Your task to perform on an android device: Search for macbook on bestbuy.com, select the first entry, and add it to the cart. Image 0: 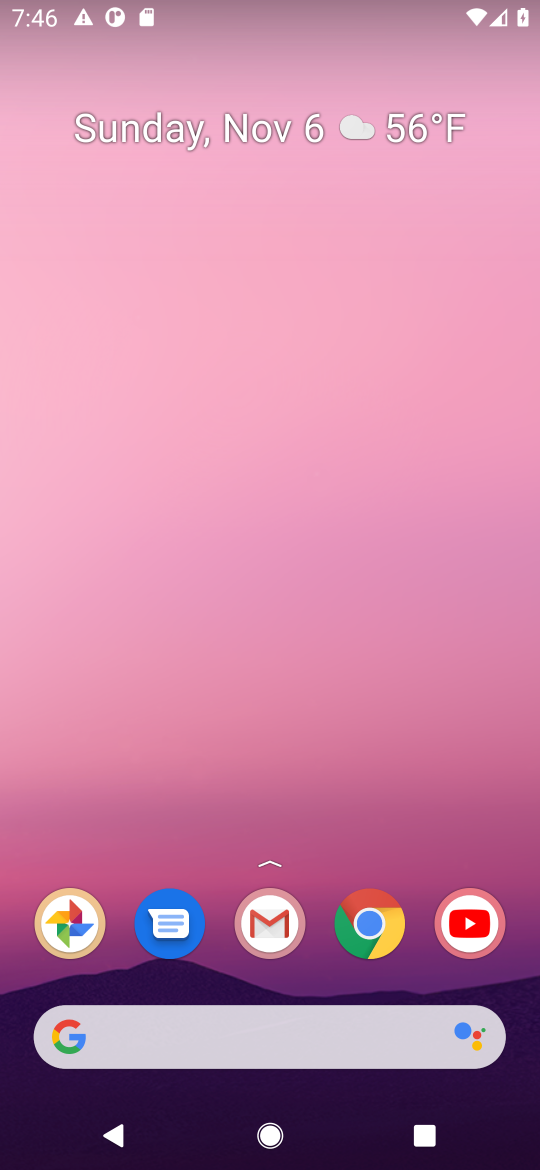
Step 0: click (375, 943)
Your task to perform on an android device: Search for macbook on bestbuy.com, select the first entry, and add it to the cart. Image 1: 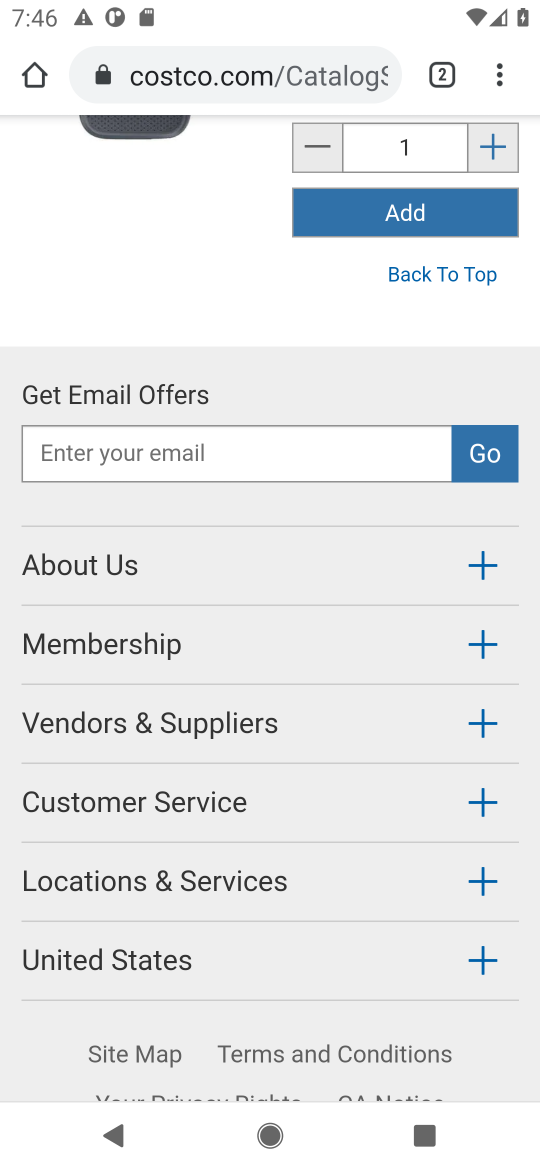
Step 1: click (187, 83)
Your task to perform on an android device: Search for macbook on bestbuy.com, select the first entry, and add it to the cart. Image 2: 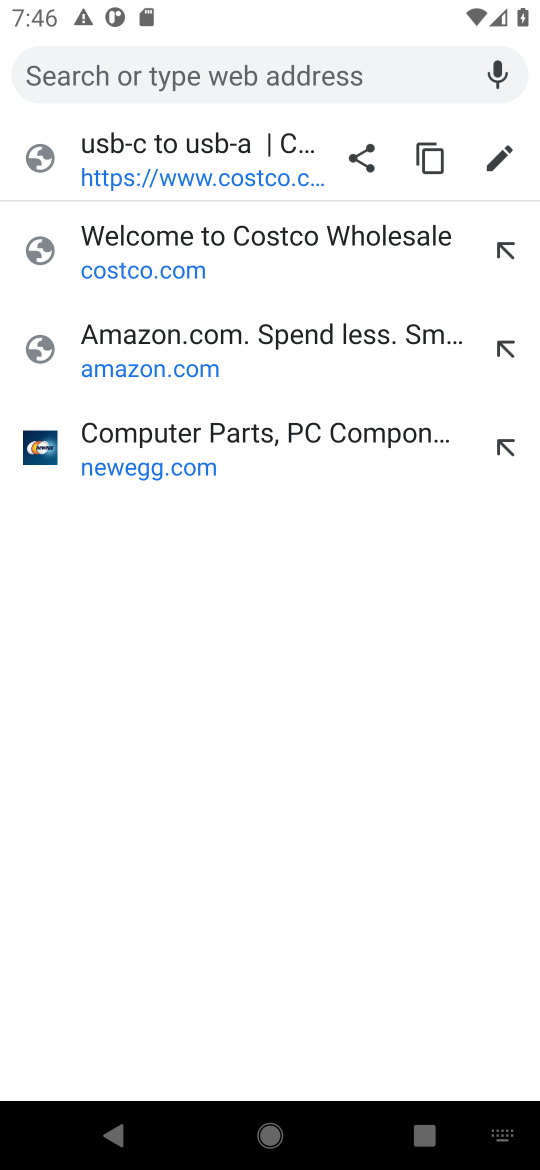
Step 2: type "bestbuy.com"
Your task to perform on an android device: Search for macbook on bestbuy.com, select the first entry, and add it to the cart. Image 3: 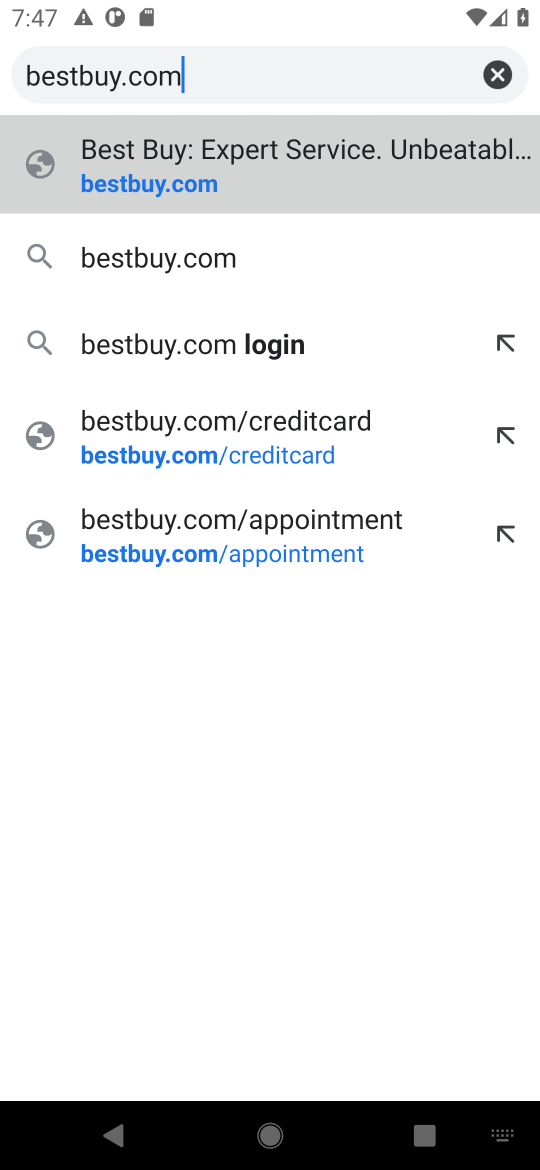
Step 3: click (151, 194)
Your task to perform on an android device: Search for macbook on bestbuy.com, select the first entry, and add it to the cart. Image 4: 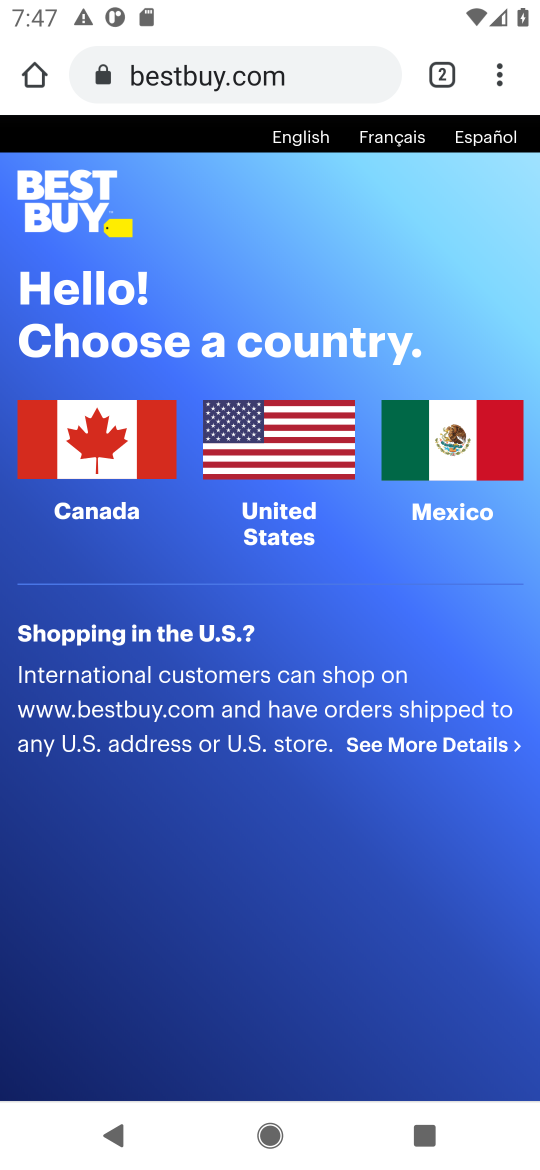
Step 4: click (272, 454)
Your task to perform on an android device: Search for macbook on bestbuy.com, select the first entry, and add it to the cart. Image 5: 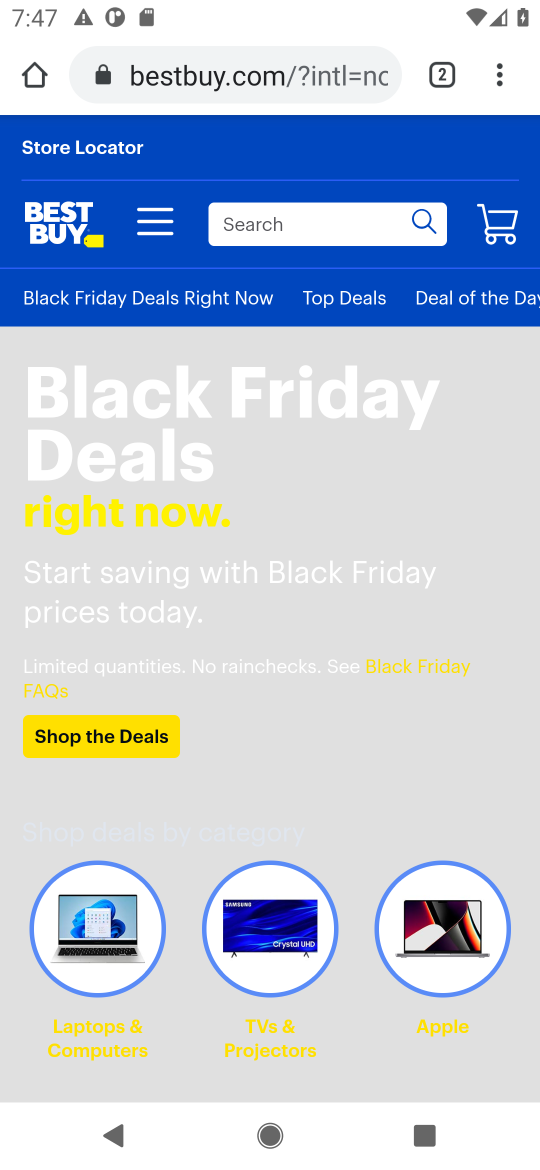
Step 5: click (290, 221)
Your task to perform on an android device: Search for macbook on bestbuy.com, select the first entry, and add it to the cart. Image 6: 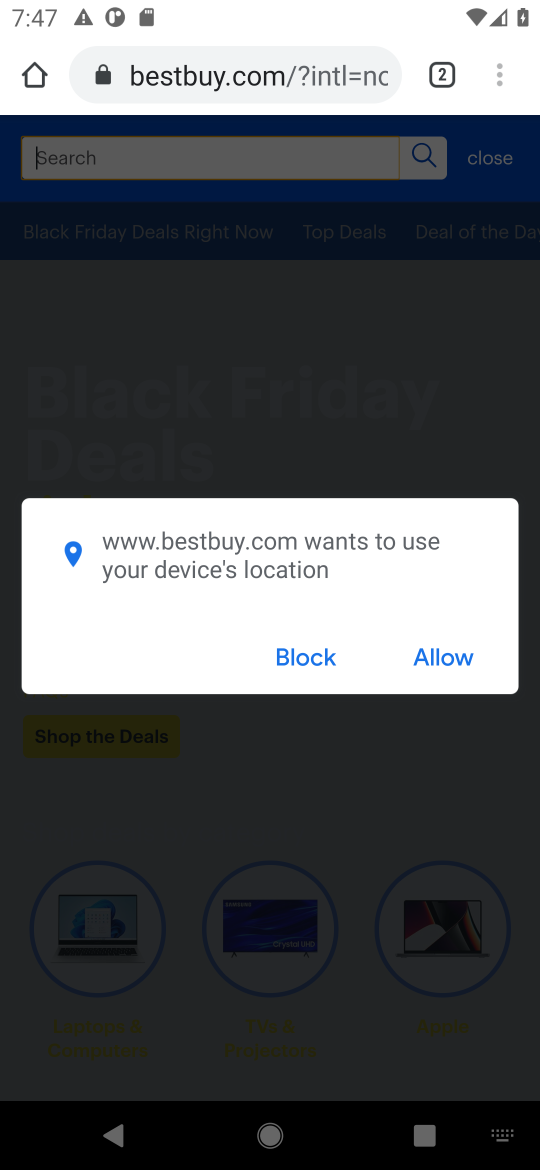
Step 6: click (302, 665)
Your task to perform on an android device: Search for macbook on bestbuy.com, select the first entry, and add it to the cart. Image 7: 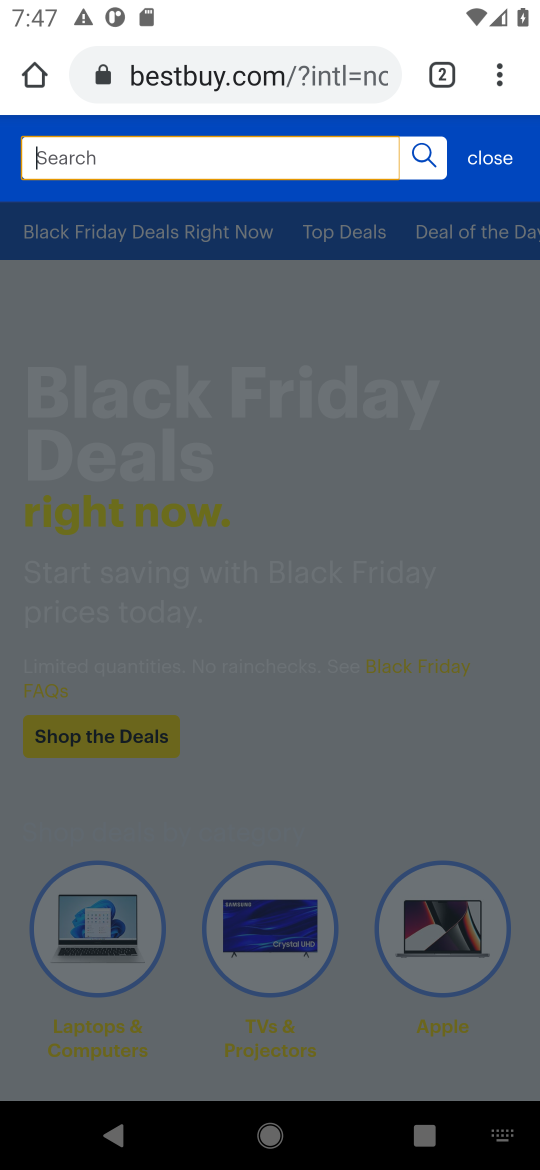
Step 7: type "macbook"
Your task to perform on an android device: Search for macbook on bestbuy.com, select the first entry, and add it to the cart. Image 8: 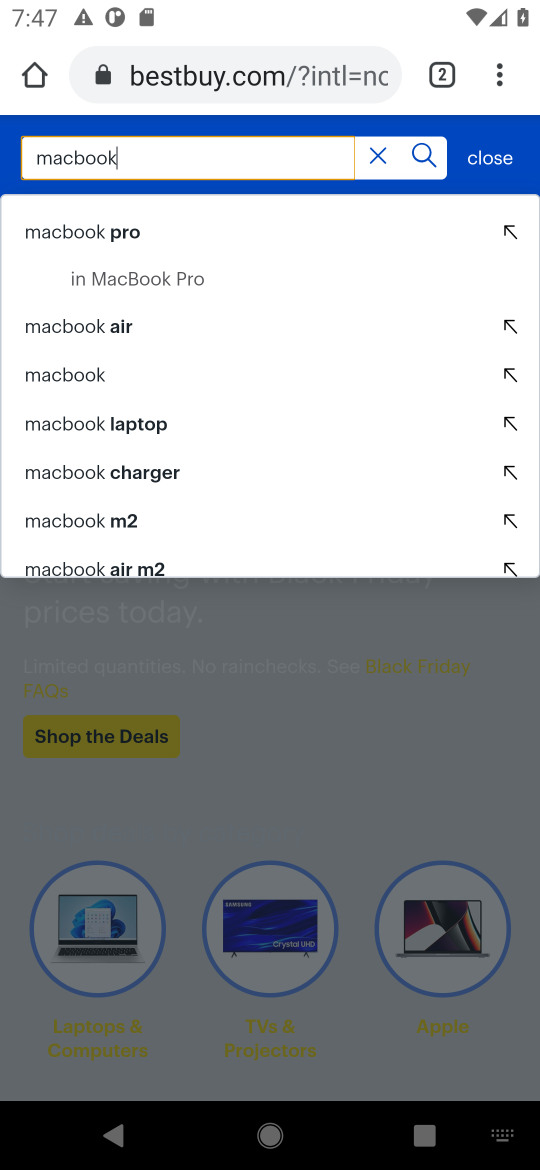
Step 8: click (80, 373)
Your task to perform on an android device: Search for macbook on bestbuy.com, select the first entry, and add it to the cart. Image 9: 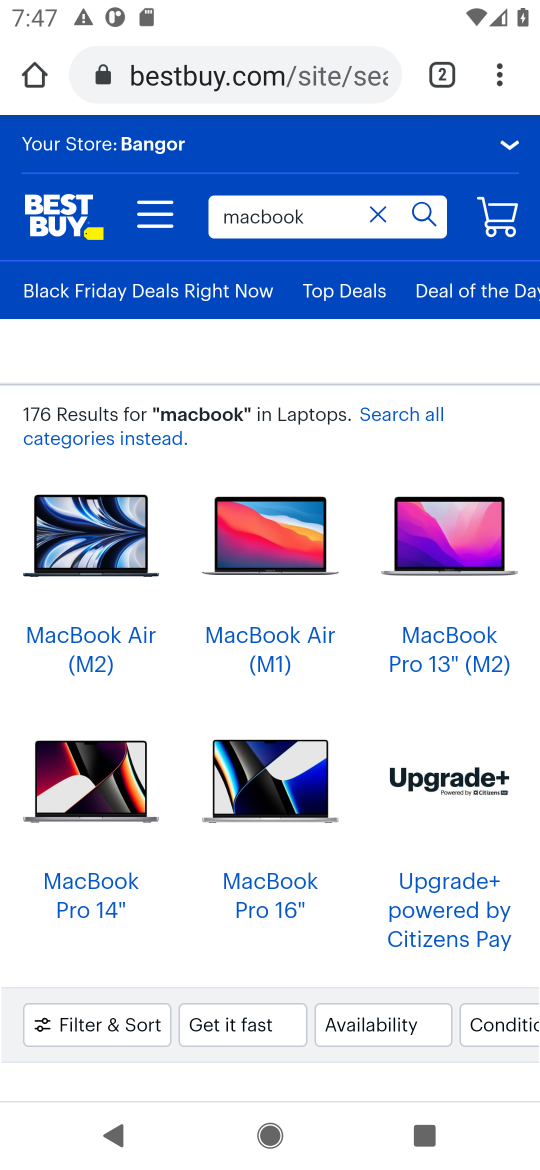
Step 9: drag from (203, 893) to (211, 435)
Your task to perform on an android device: Search for macbook on bestbuy.com, select the first entry, and add it to the cart. Image 10: 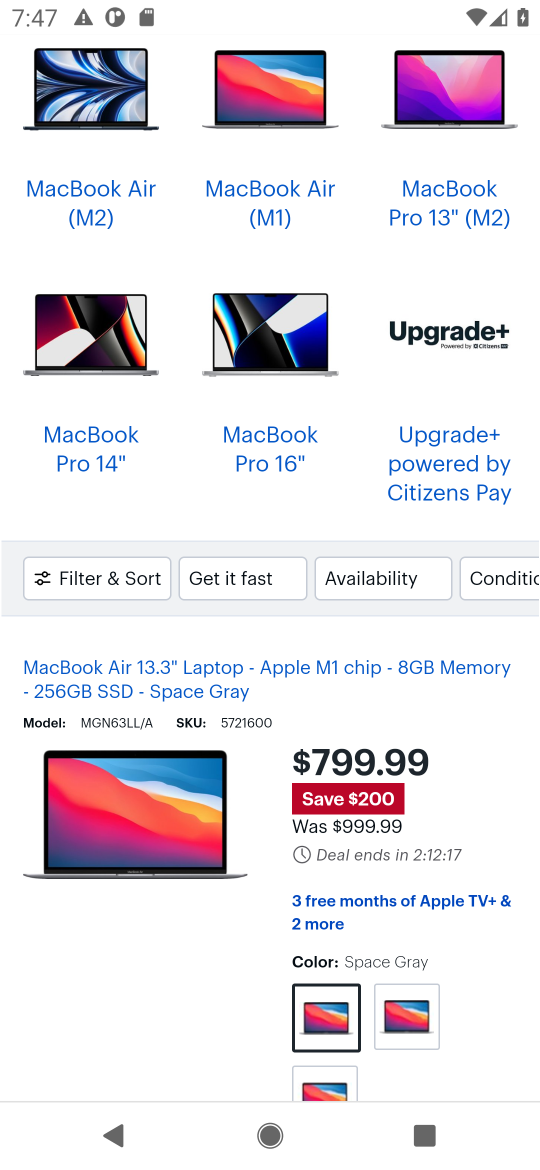
Step 10: drag from (200, 906) to (201, 609)
Your task to perform on an android device: Search for macbook on bestbuy.com, select the first entry, and add it to the cart. Image 11: 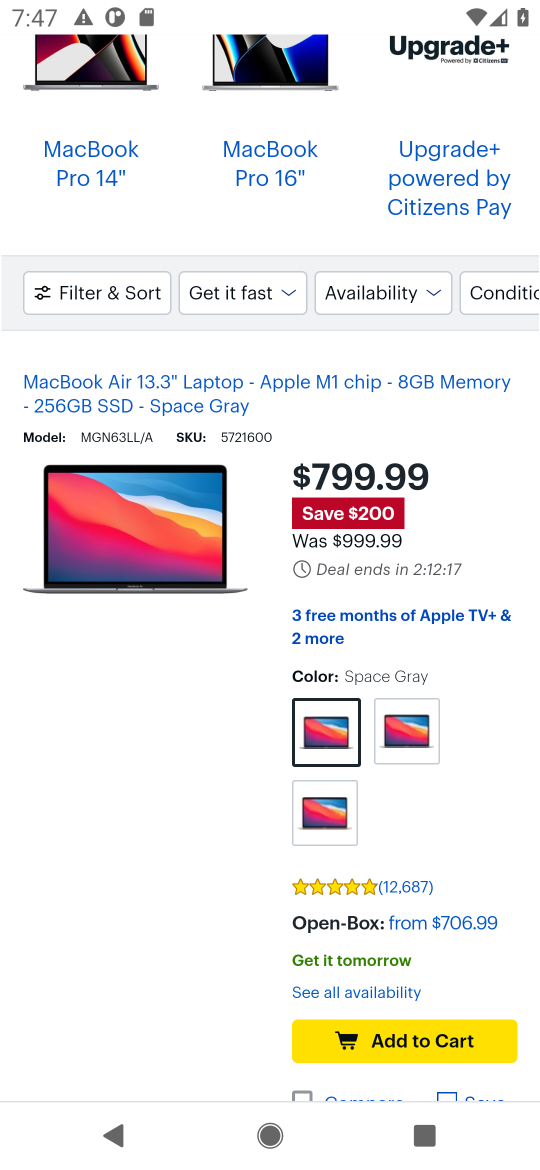
Step 11: click (348, 578)
Your task to perform on an android device: Search for macbook on bestbuy.com, select the first entry, and add it to the cart. Image 12: 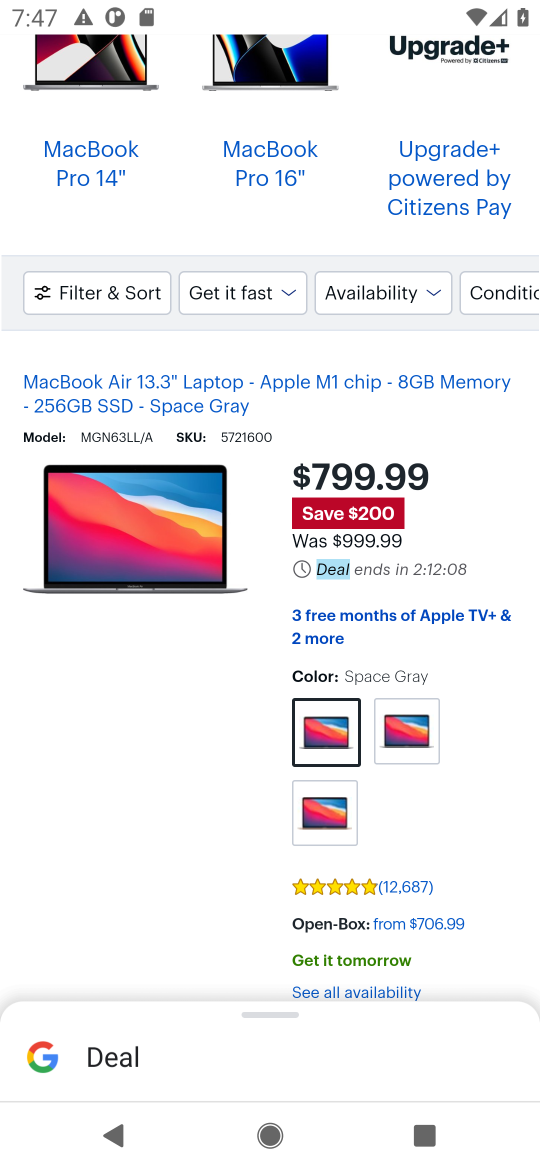
Step 12: drag from (379, 734) to (384, 629)
Your task to perform on an android device: Search for macbook on bestbuy.com, select the first entry, and add it to the cart. Image 13: 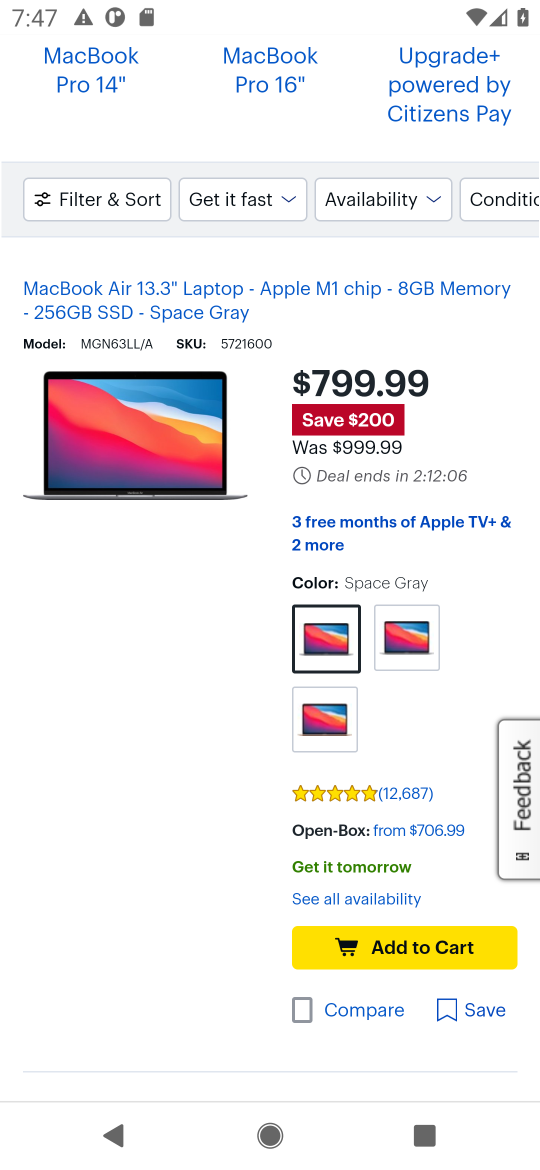
Step 13: click (401, 941)
Your task to perform on an android device: Search for macbook on bestbuy.com, select the first entry, and add it to the cart. Image 14: 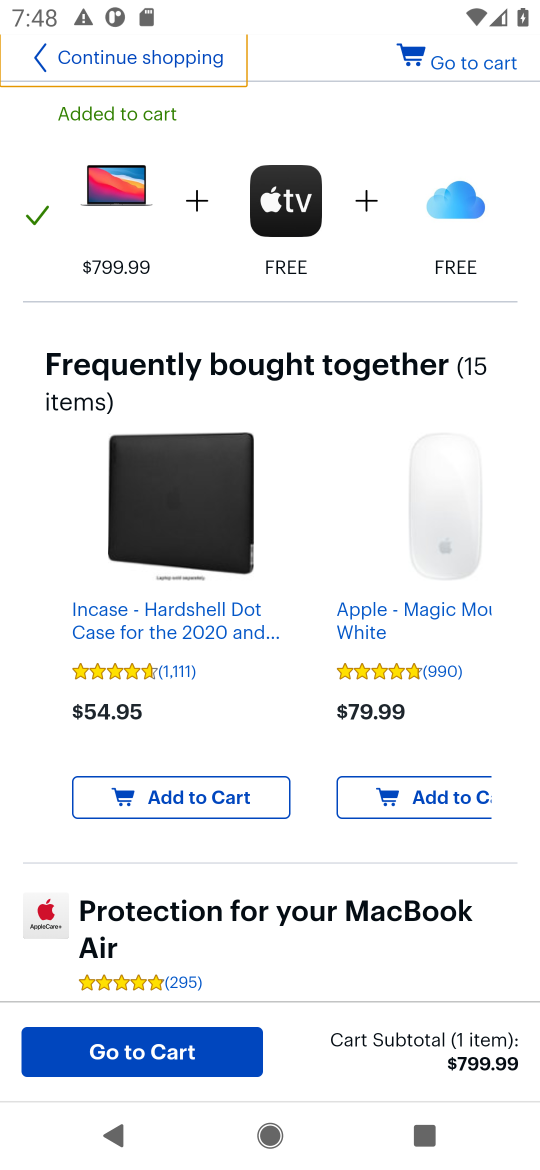
Step 14: task complete